Your task to perform on an android device: read, delete, or share a saved page in the chrome app Image 0: 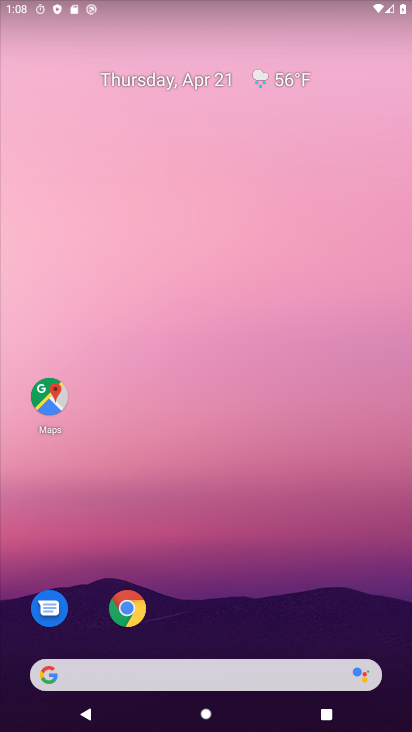
Step 0: click (127, 606)
Your task to perform on an android device: read, delete, or share a saved page in the chrome app Image 1: 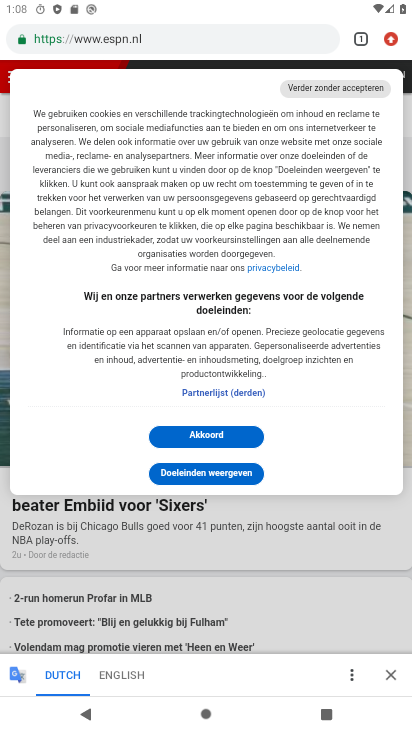
Step 1: click (393, 36)
Your task to perform on an android device: read, delete, or share a saved page in the chrome app Image 2: 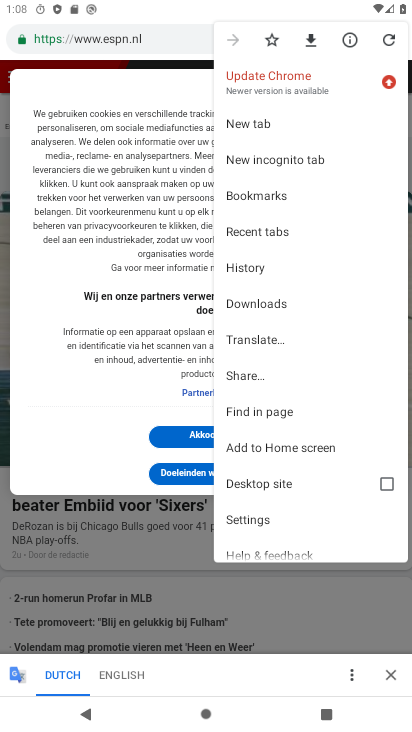
Step 2: click (271, 301)
Your task to perform on an android device: read, delete, or share a saved page in the chrome app Image 3: 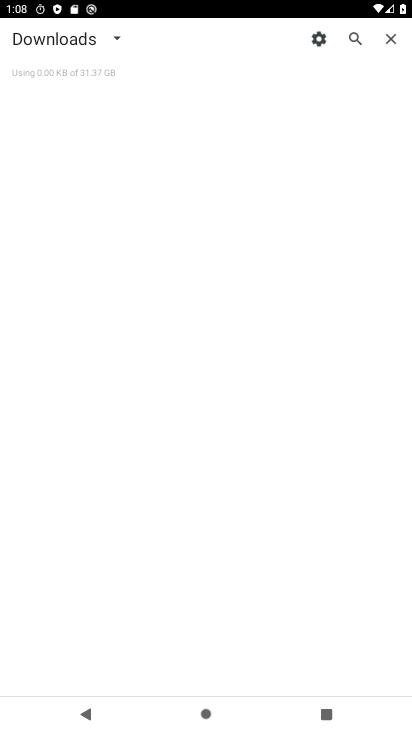
Step 3: click (110, 33)
Your task to perform on an android device: read, delete, or share a saved page in the chrome app Image 4: 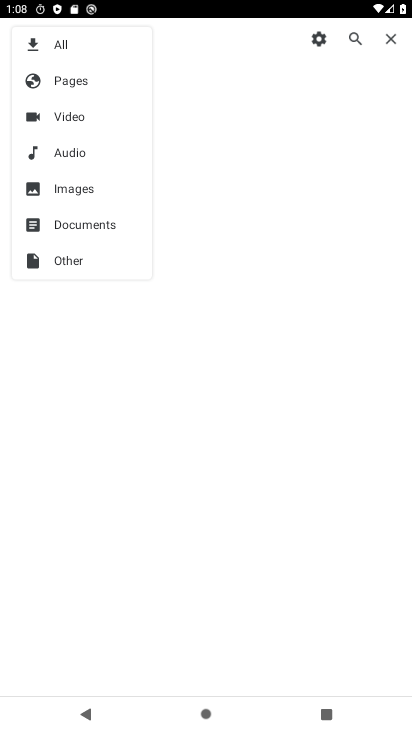
Step 4: click (93, 82)
Your task to perform on an android device: read, delete, or share a saved page in the chrome app Image 5: 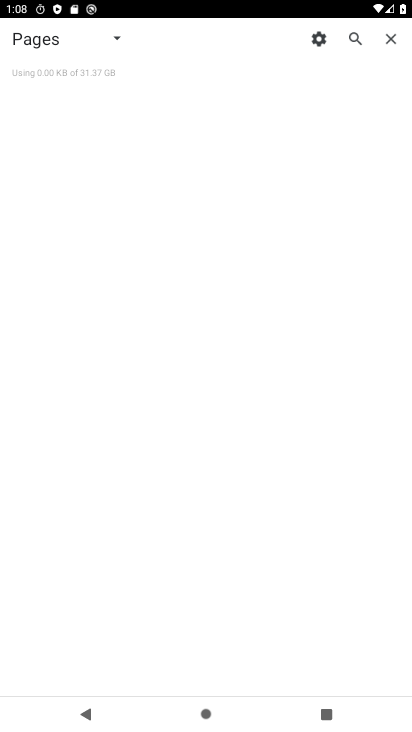
Step 5: task complete